Your task to perform on an android device: Open Google Maps and go to "Timeline" Image 0: 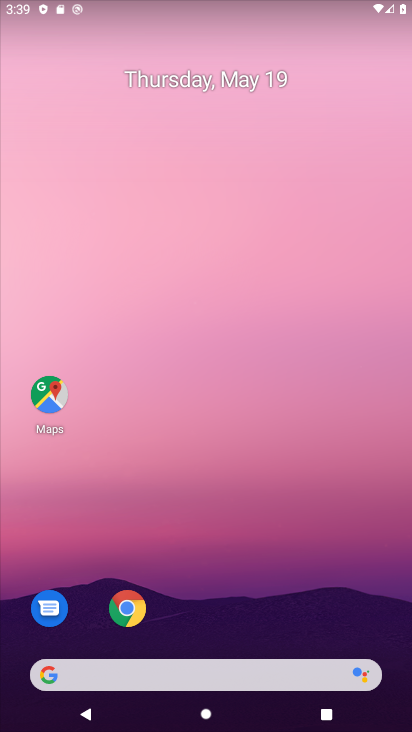
Step 0: drag from (227, 615) to (229, 152)
Your task to perform on an android device: Open Google Maps and go to "Timeline" Image 1: 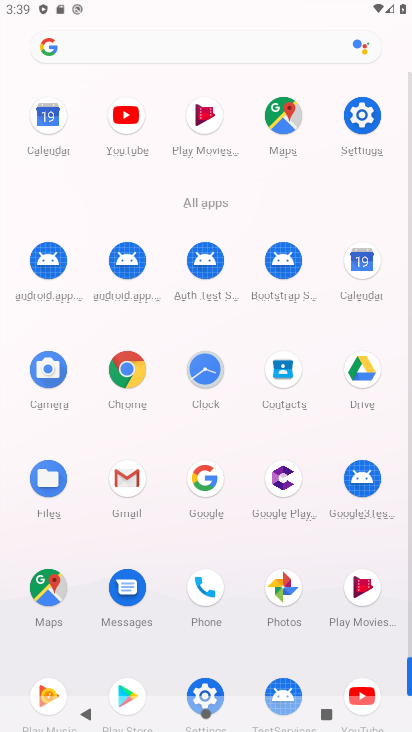
Step 1: click (48, 584)
Your task to perform on an android device: Open Google Maps and go to "Timeline" Image 2: 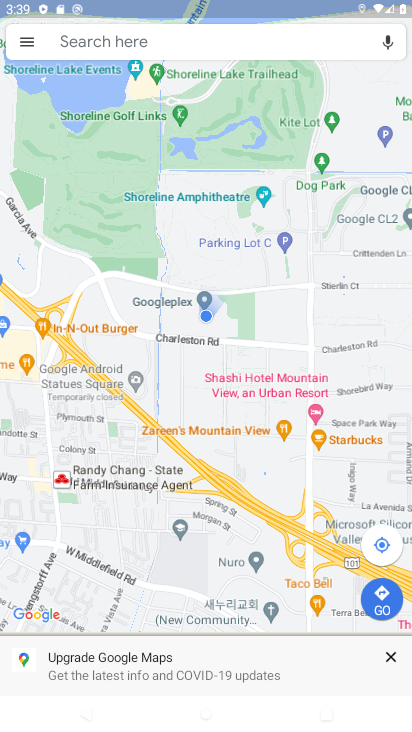
Step 2: click (28, 41)
Your task to perform on an android device: Open Google Maps and go to "Timeline" Image 3: 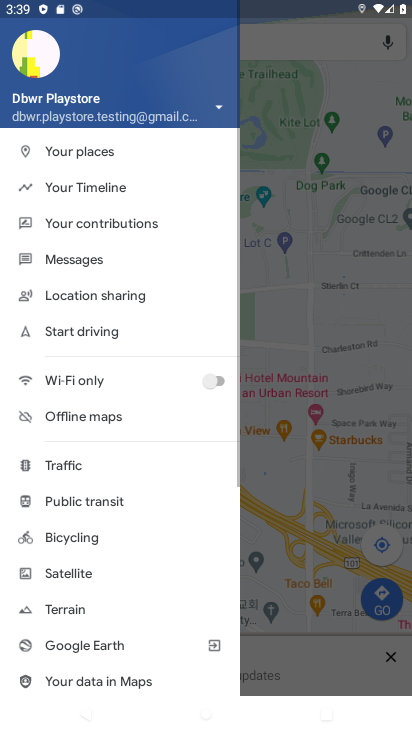
Step 3: click (87, 189)
Your task to perform on an android device: Open Google Maps and go to "Timeline" Image 4: 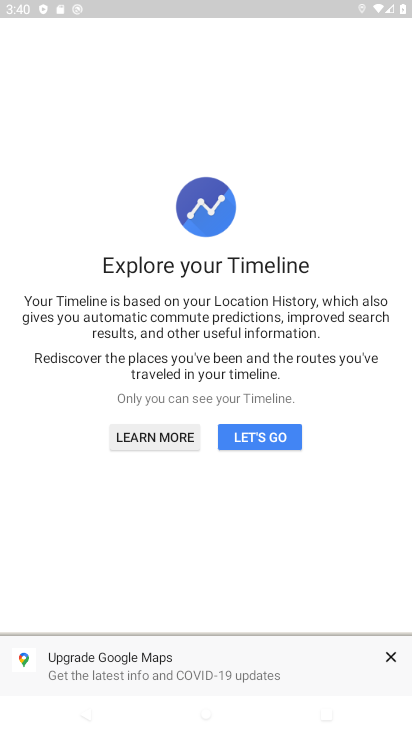
Step 4: click (272, 437)
Your task to perform on an android device: Open Google Maps and go to "Timeline" Image 5: 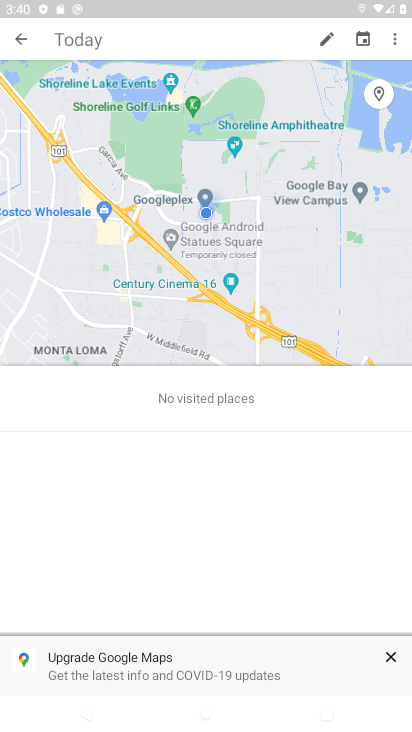
Step 5: task complete